Your task to perform on an android device: Go to Android settings Image 0: 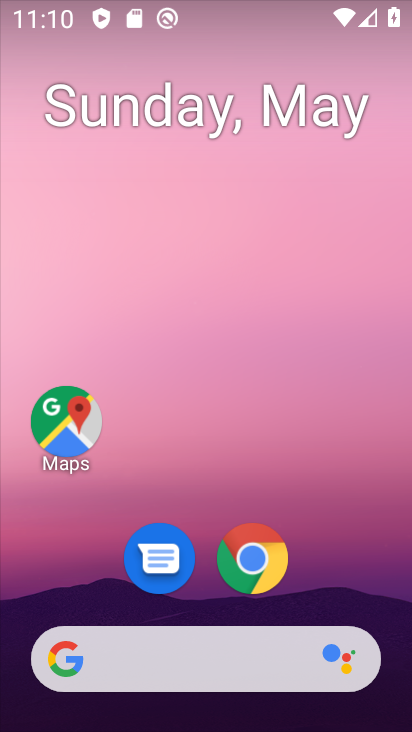
Step 0: drag from (379, 556) to (368, 158)
Your task to perform on an android device: Go to Android settings Image 1: 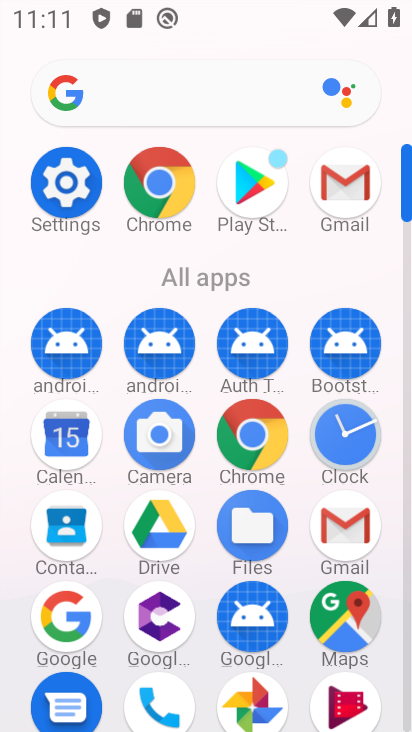
Step 1: click (79, 183)
Your task to perform on an android device: Go to Android settings Image 2: 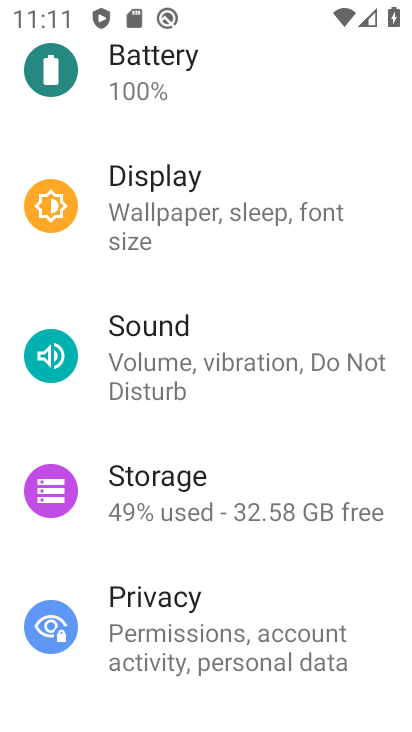
Step 2: drag from (375, 190) to (375, 402)
Your task to perform on an android device: Go to Android settings Image 3: 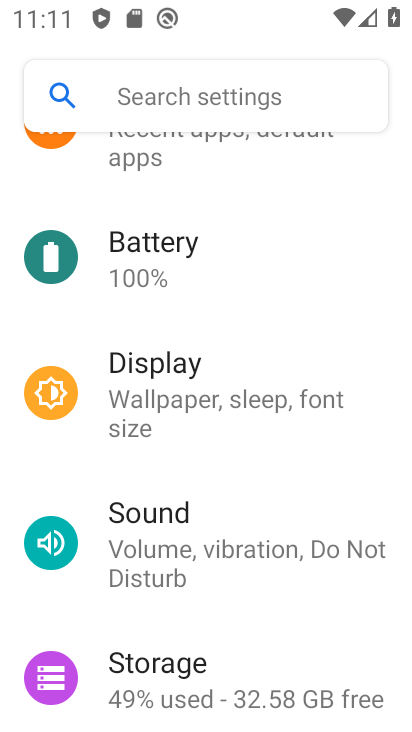
Step 3: drag from (350, 208) to (356, 389)
Your task to perform on an android device: Go to Android settings Image 4: 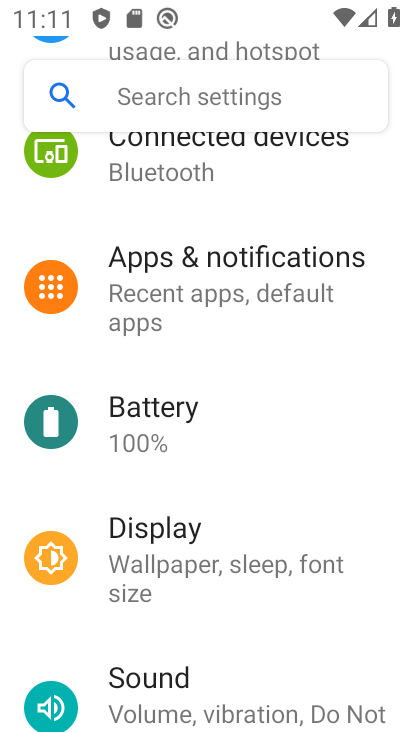
Step 4: drag from (364, 177) to (364, 366)
Your task to perform on an android device: Go to Android settings Image 5: 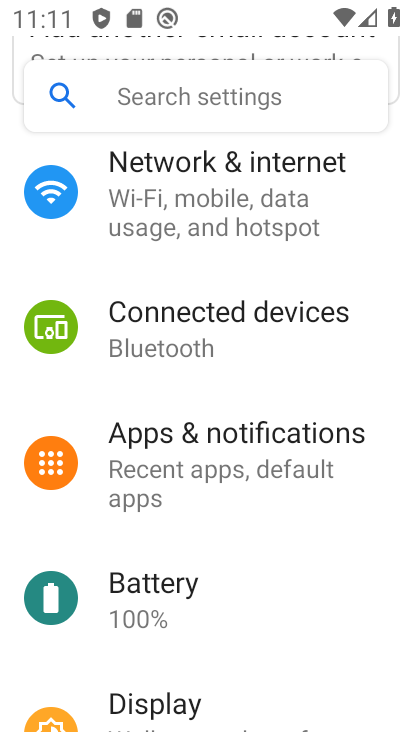
Step 5: drag from (343, 619) to (355, 443)
Your task to perform on an android device: Go to Android settings Image 6: 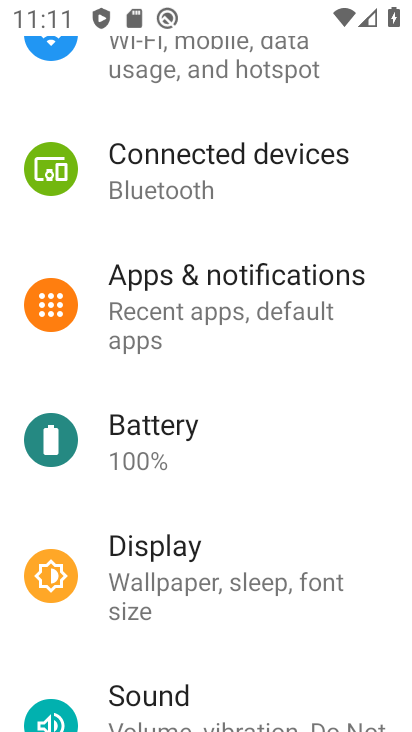
Step 6: drag from (340, 661) to (335, 474)
Your task to perform on an android device: Go to Android settings Image 7: 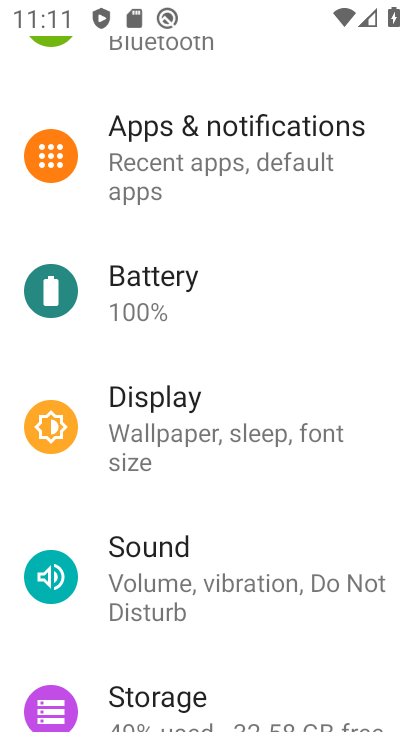
Step 7: drag from (317, 668) to (321, 476)
Your task to perform on an android device: Go to Android settings Image 8: 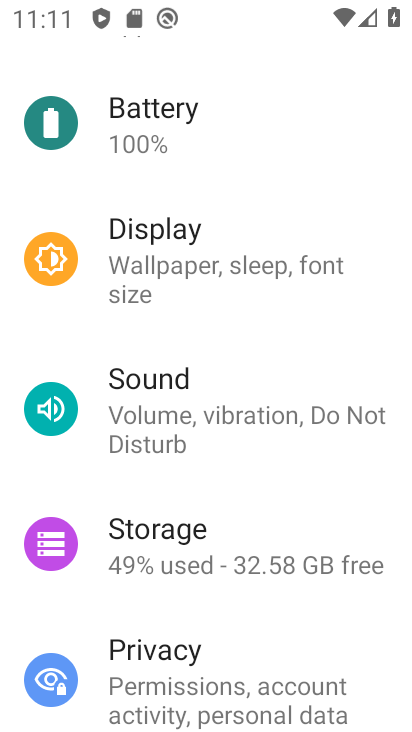
Step 8: drag from (314, 641) to (313, 482)
Your task to perform on an android device: Go to Android settings Image 9: 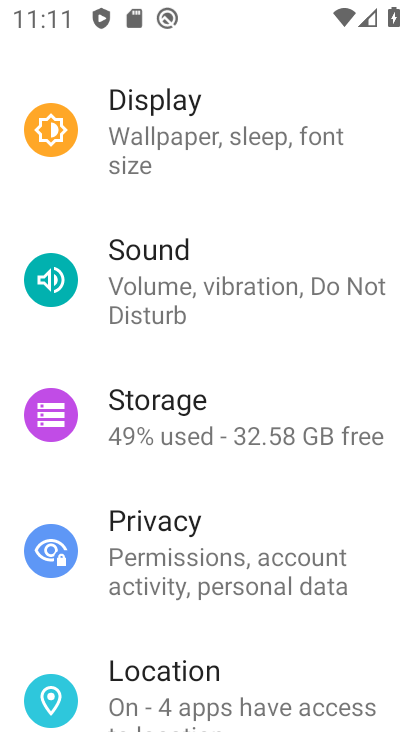
Step 9: drag from (288, 657) to (292, 477)
Your task to perform on an android device: Go to Android settings Image 10: 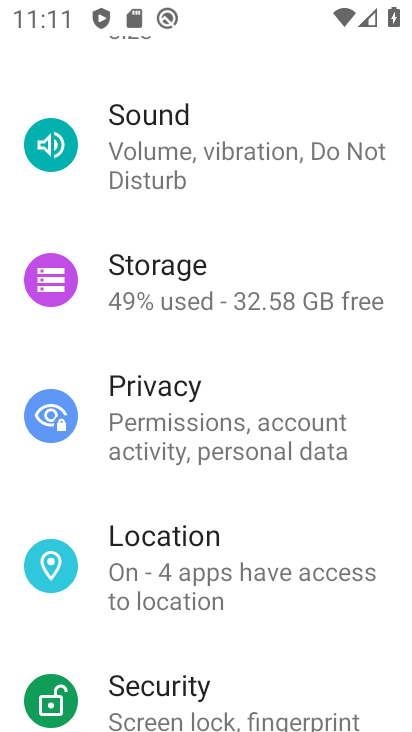
Step 10: drag from (299, 663) to (305, 481)
Your task to perform on an android device: Go to Android settings Image 11: 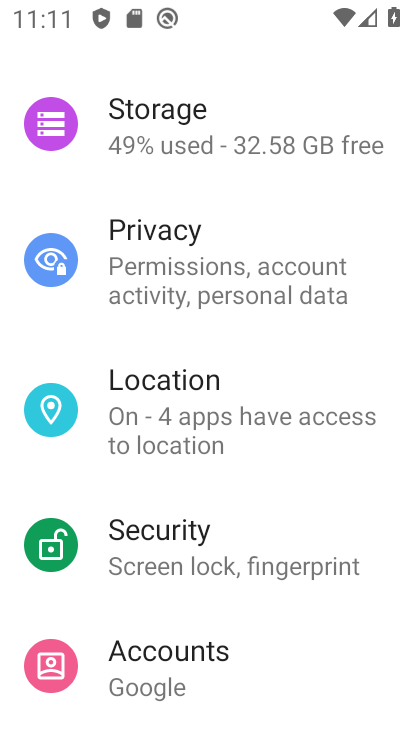
Step 11: drag from (293, 687) to (311, 472)
Your task to perform on an android device: Go to Android settings Image 12: 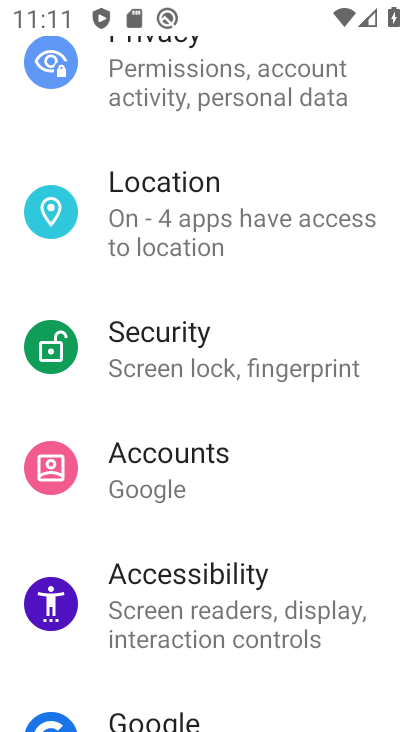
Step 12: drag from (337, 665) to (354, 460)
Your task to perform on an android device: Go to Android settings Image 13: 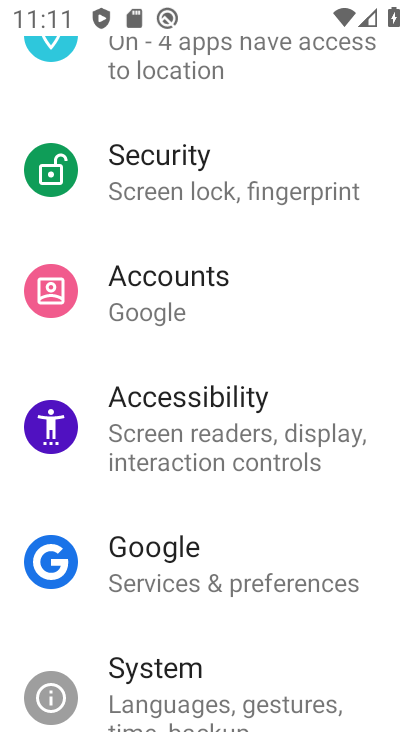
Step 13: drag from (307, 652) to (306, 506)
Your task to perform on an android device: Go to Android settings Image 14: 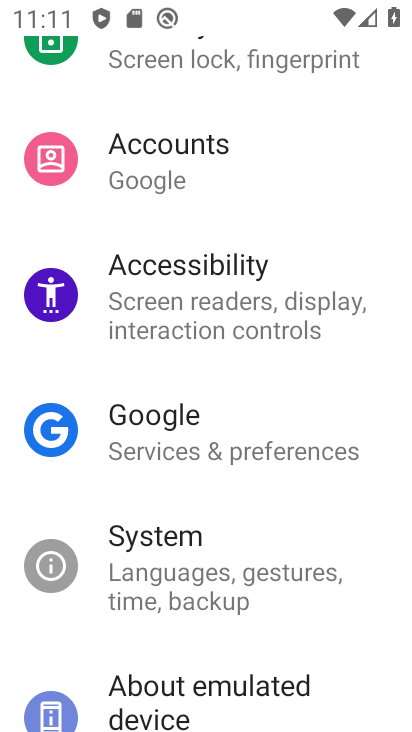
Step 14: click (273, 569)
Your task to perform on an android device: Go to Android settings Image 15: 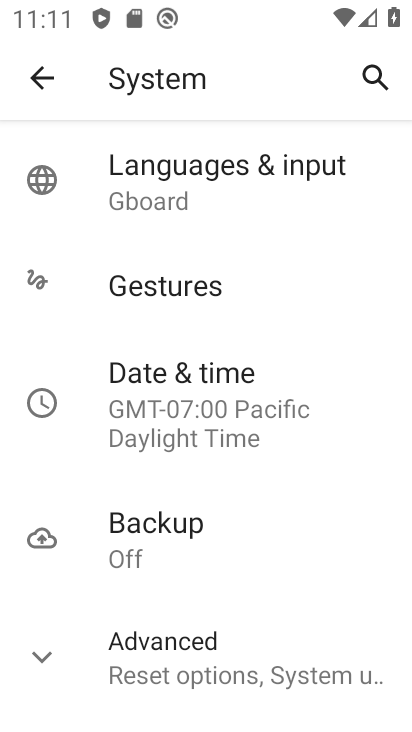
Step 15: click (209, 683)
Your task to perform on an android device: Go to Android settings Image 16: 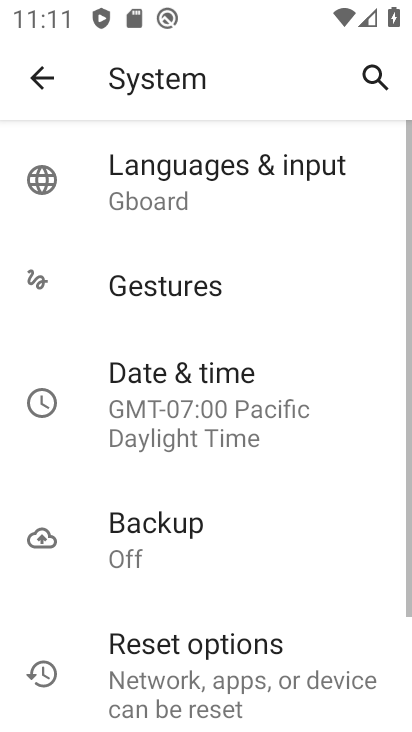
Step 16: task complete